Your task to perform on an android device: open a bookmark in the chrome app Image 0: 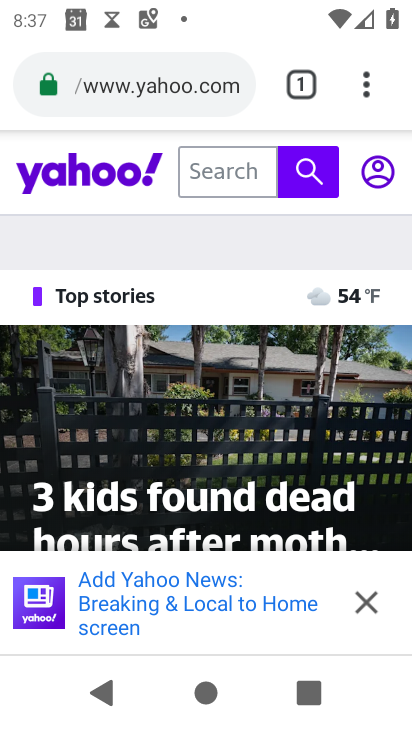
Step 0: click (366, 91)
Your task to perform on an android device: open a bookmark in the chrome app Image 1: 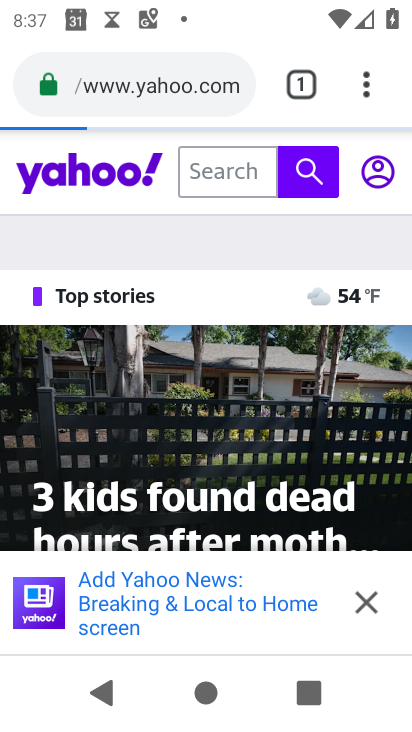
Step 1: click (366, 91)
Your task to perform on an android device: open a bookmark in the chrome app Image 2: 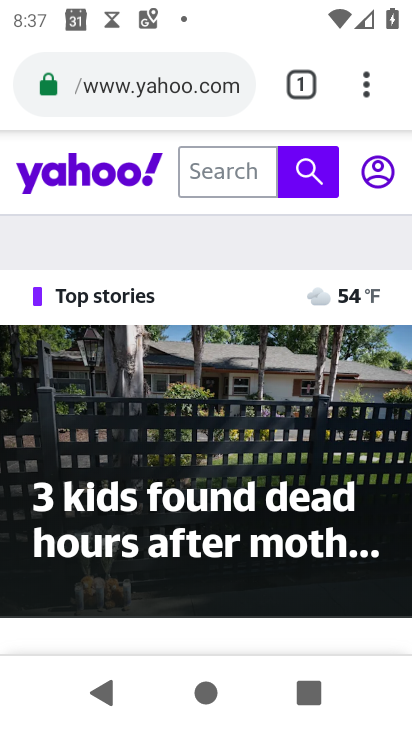
Step 2: click (348, 60)
Your task to perform on an android device: open a bookmark in the chrome app Image 3: 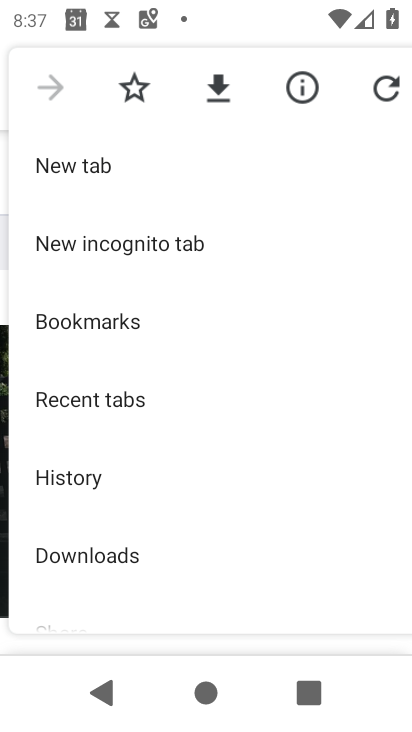
Step 3: click (116, 309)
Your task to perform on an android device: open a bookmark in the chrome app Image 4: 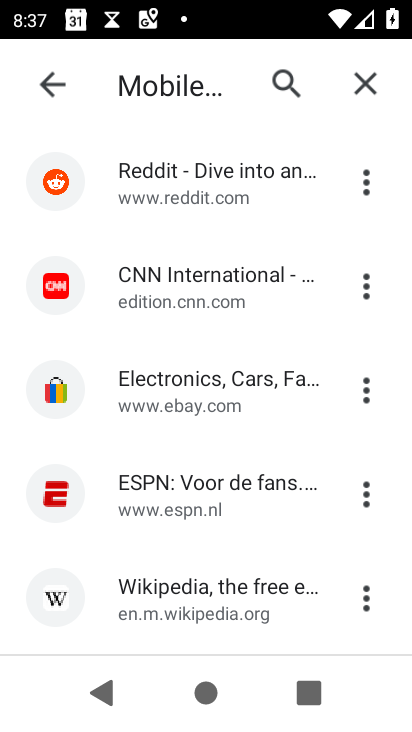
Step 4: click (118, 300)
Your task to perform on an android device: open a bookmark in the chrome app Image 5: 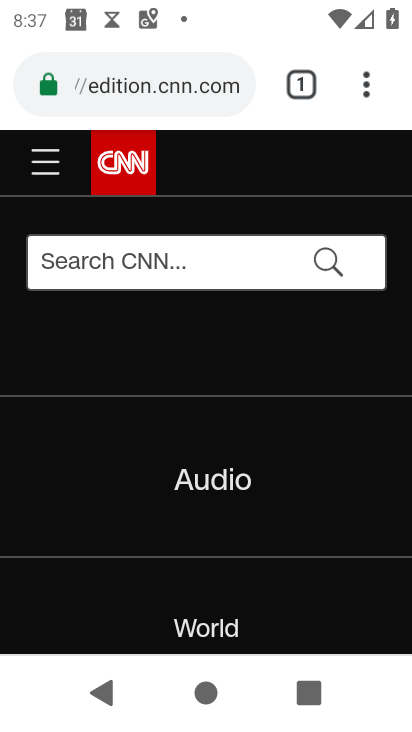
Step 5: task complete